Your task to perform on an android device: change the clock display to show seconds Image 0: 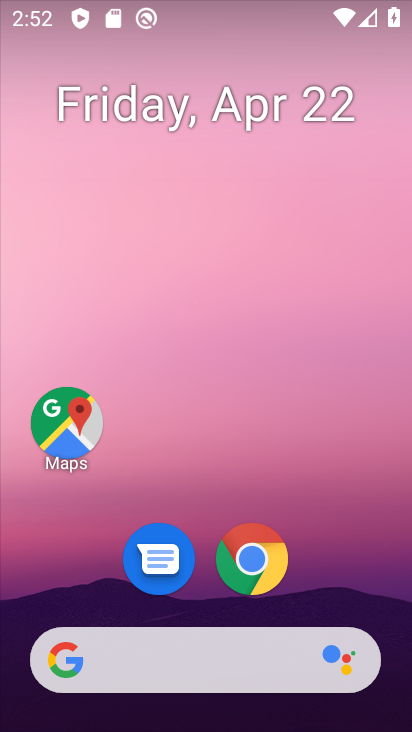
Step 0: drag from (215, 724) to (221, 164)
Your task to perform on an android device: change the clock display to show seconds Image 1: 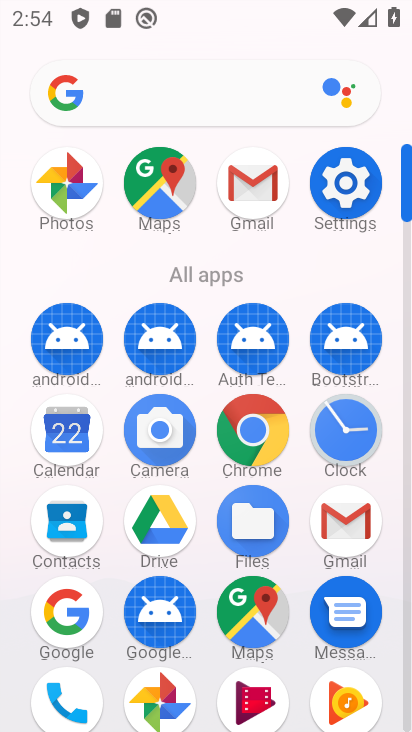
Step 1: click (349, 430)
Your task to perform on an android device: change the clock display to show seconds Image 2: 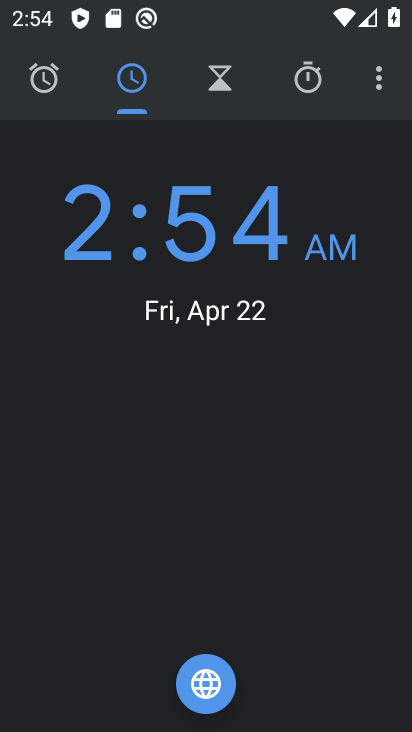
Step 2: click (51, 91)
Your task to perform on an android device: change the clock display to show seconds Image 3: 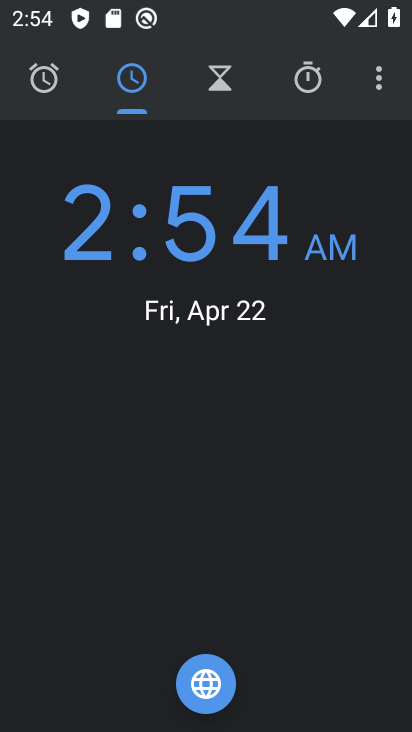
Step 3: click (381, 72)
Your task to perform on an android device: change the clock display to show seconds Image 4: 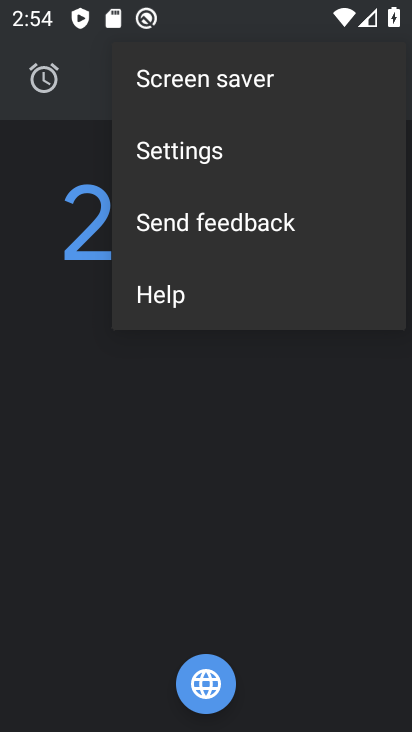
Step 4: click (186, 158)
Your task to perform on an android device: change the clock display to show seconds Image 5: 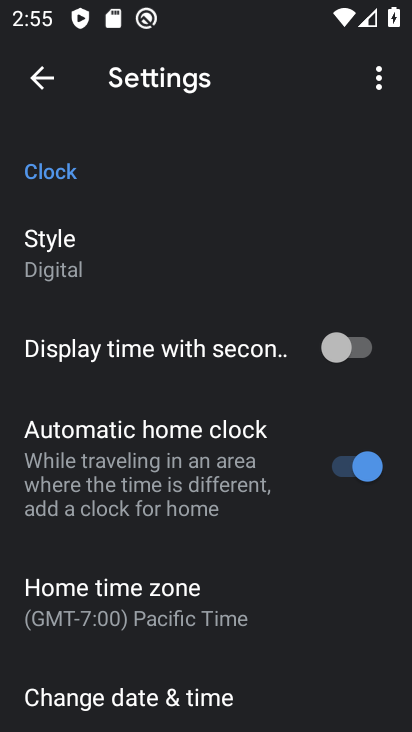
Step 5: click (364, 346)
Your task to perform on an android device: change the clock display to show seconds Image 6: 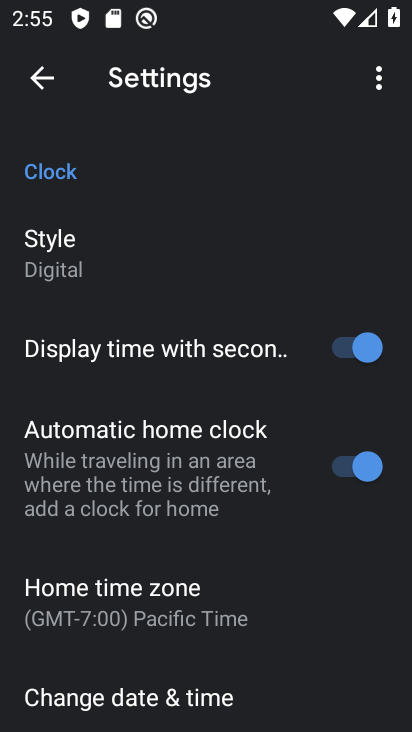
Step 6: task complete